Your task to perform on an android device: What time is it in New York? Image 0: 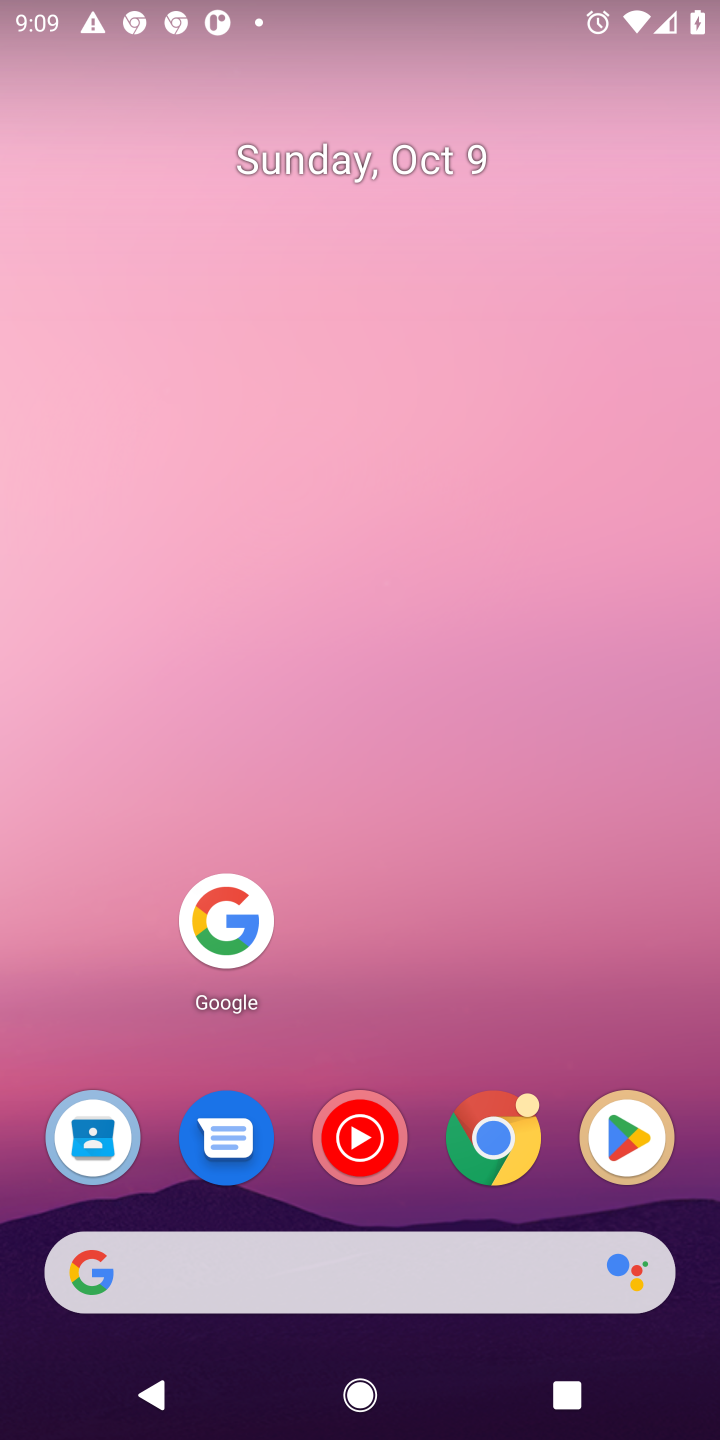
Step 0: drag from (303, 1217) to (389, 224)
Your task to perform on an android device: What time is it in New York? Image 1: 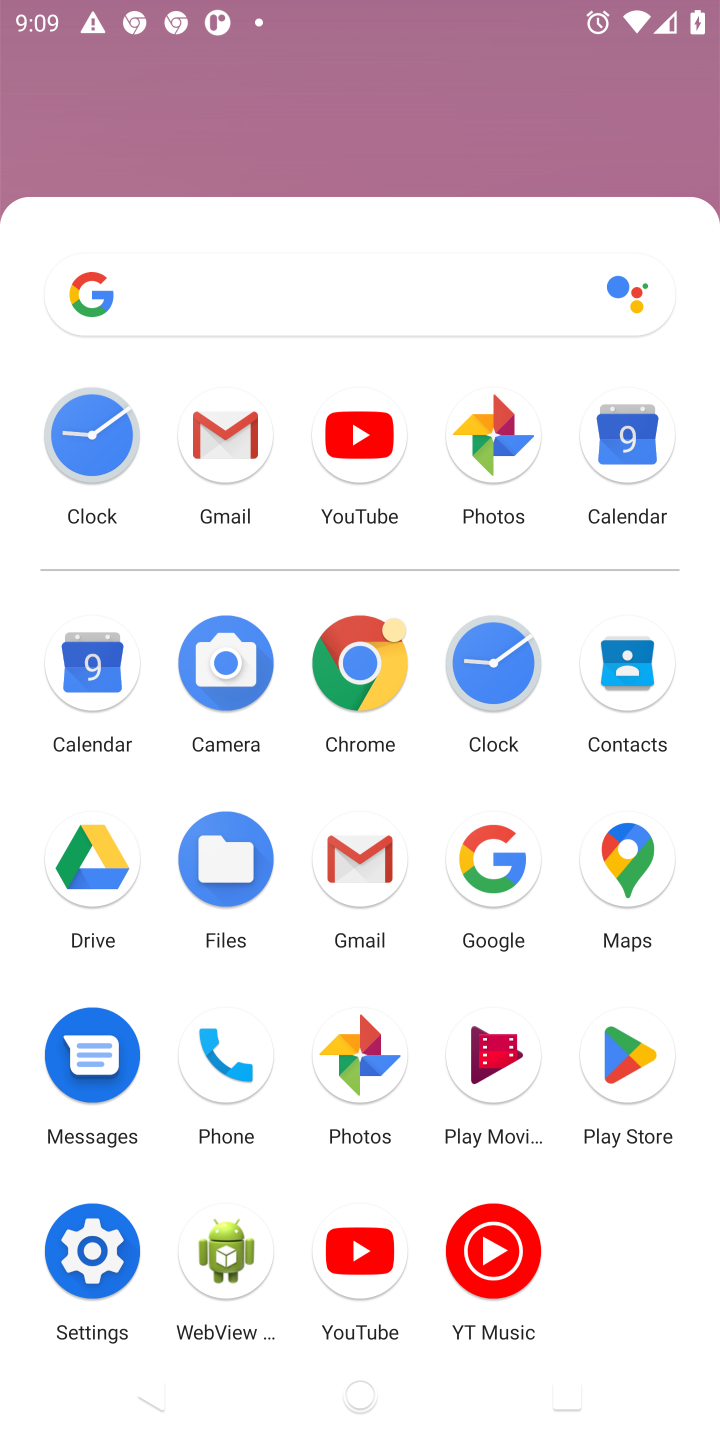
Step 1: click (203, 906)
Your task to perform on an android device: What time is it in New York? Image 2: 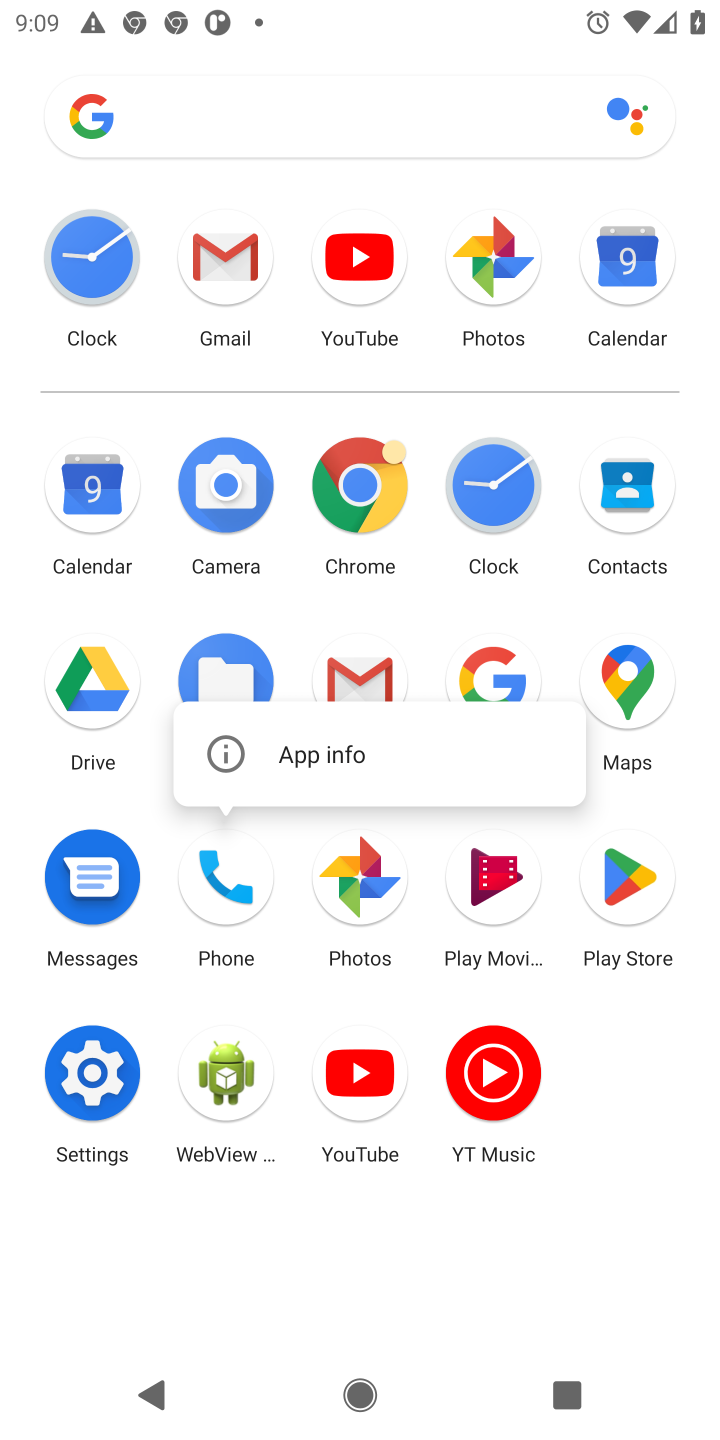
Step 2: click (488, 671)
Your task to perform on an android device: What time is it in New York? Image 3: 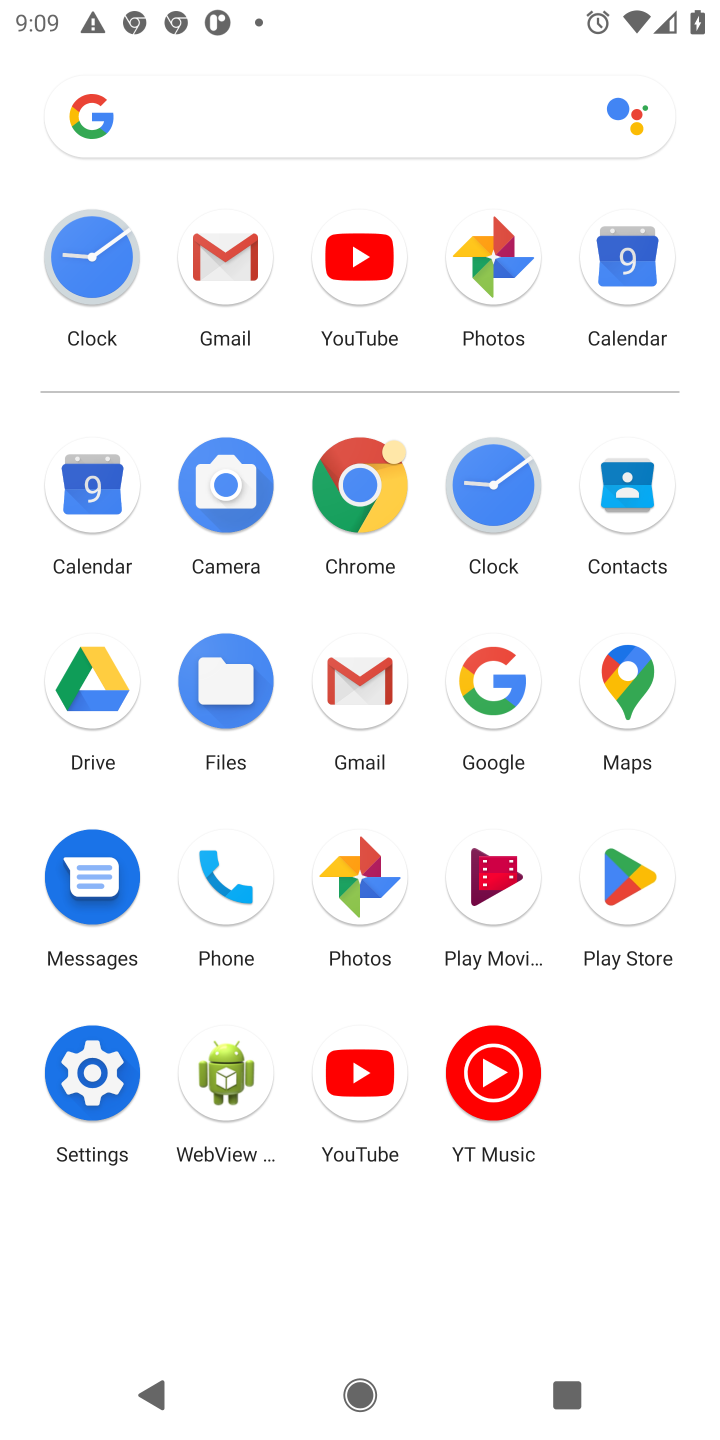
Step 3: click (488, 671)
Your task to perform on an android device: What time is it in New York? Image 4: 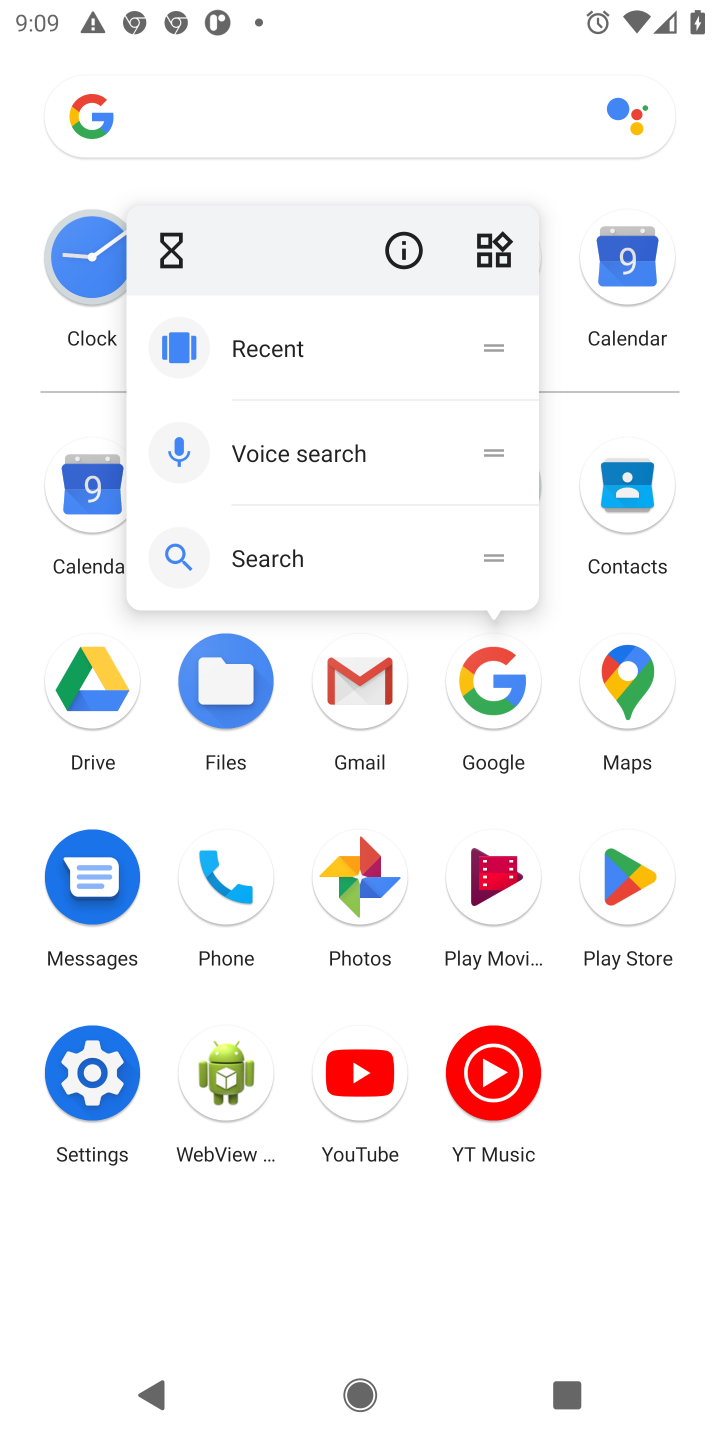
Step 4: click (467, 666)
Your task to perform on an android device: What time is it in New York? Image 5: 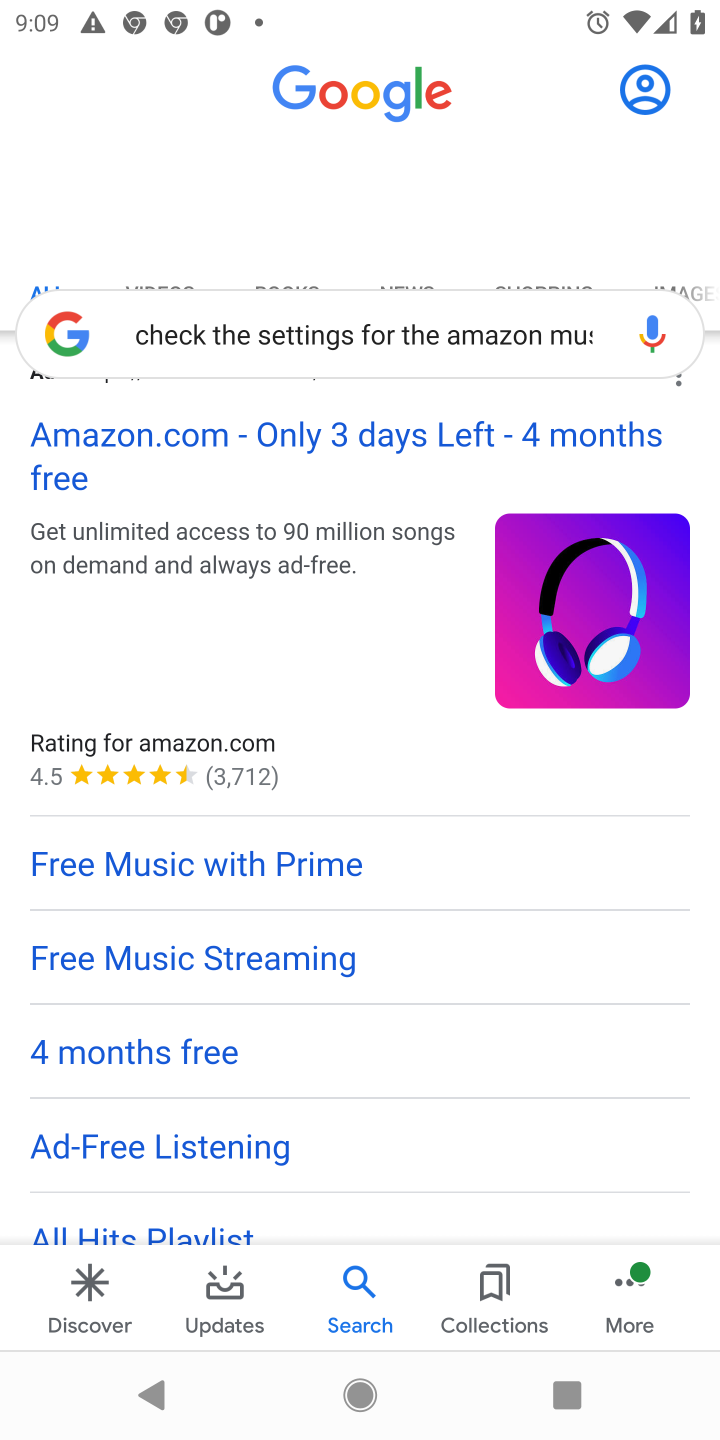
Step 5: click (394, 320)
Your task to perform on an android device: What time is it in New York? Image 6: 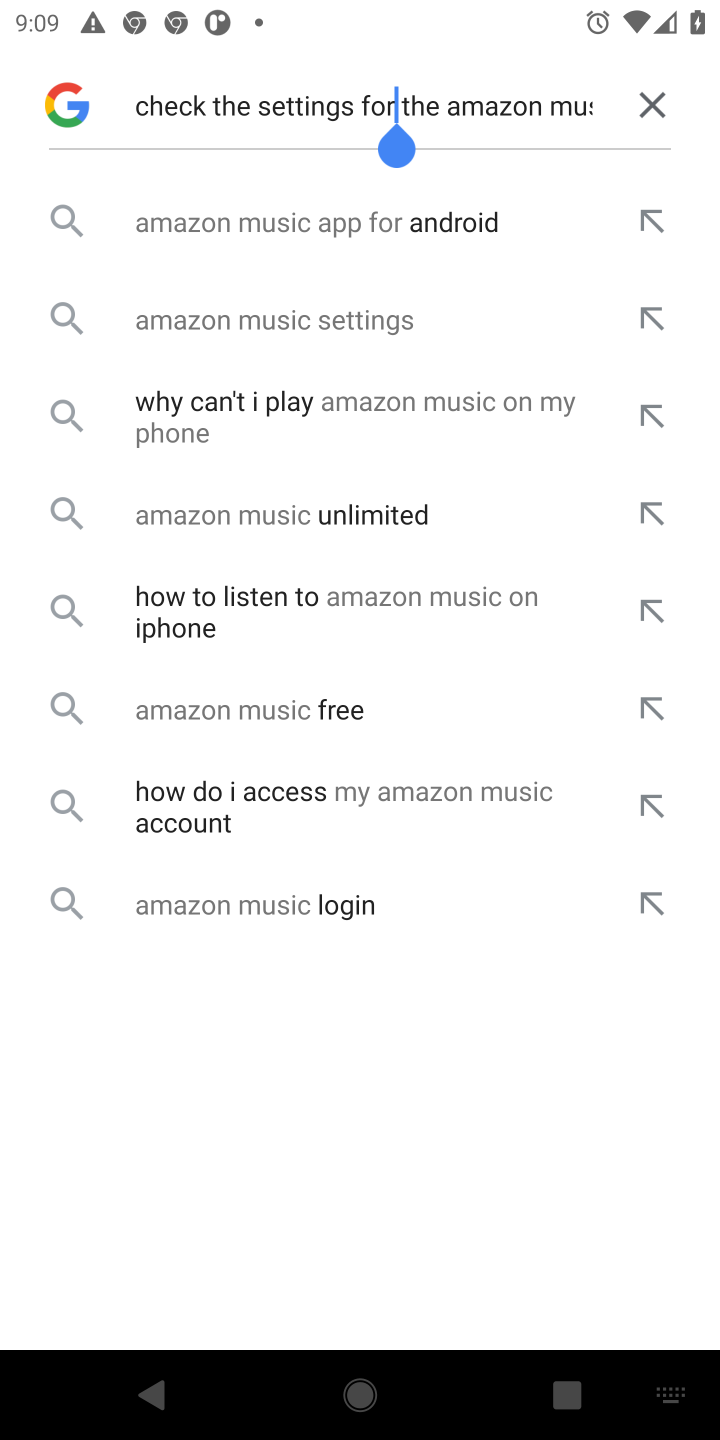
Step 6: click (645, 107)
Your task to perform on an android device: What time is it in New York? Image 7: 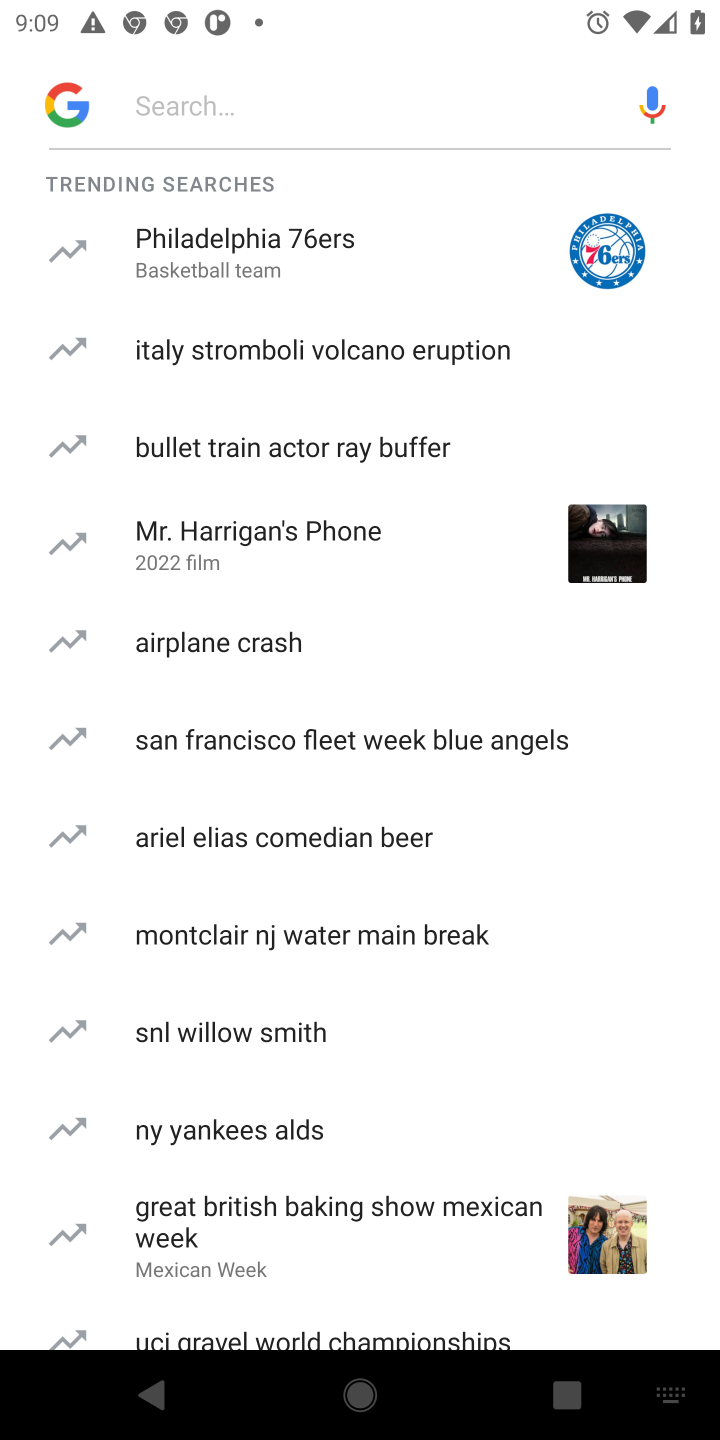
Step 7: click (357, 100)
Your task to perform on an android device: What time is it in New York? Image 8: 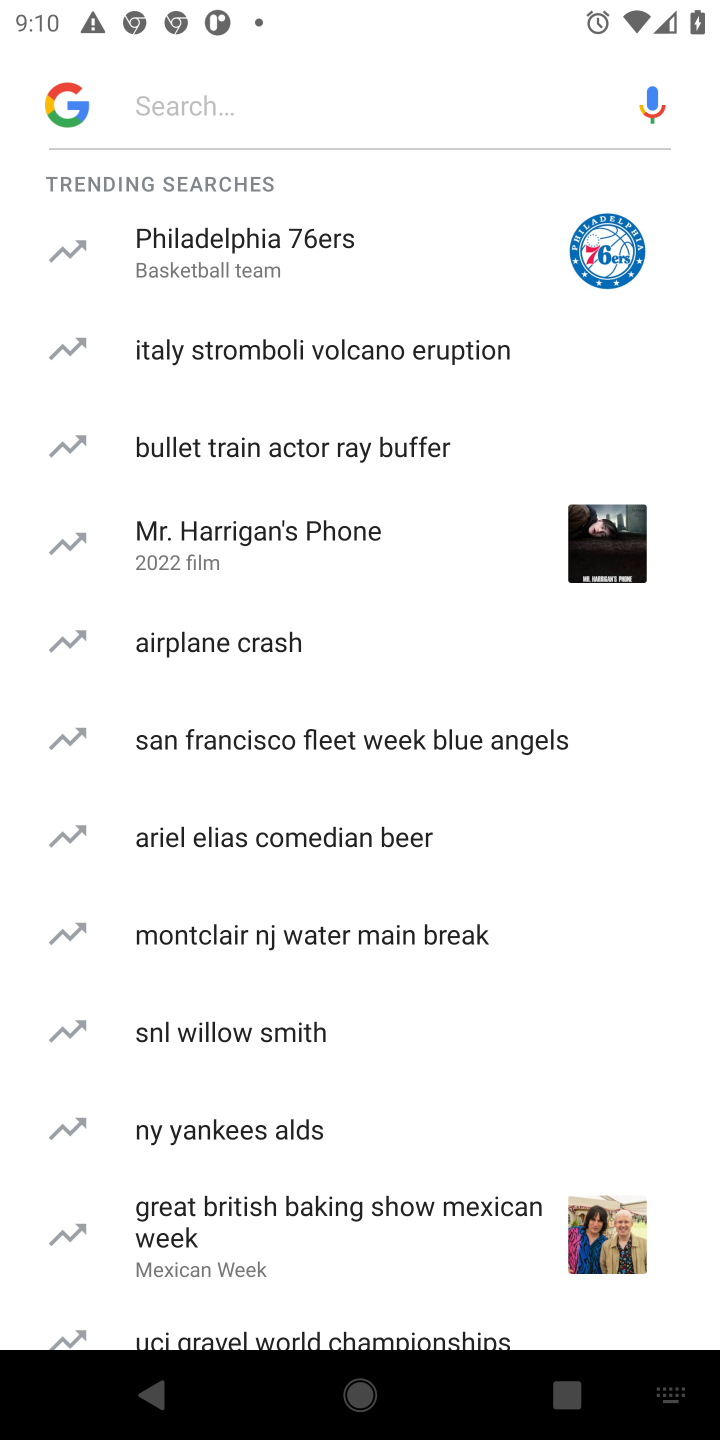
Step 8: type "What time is it in New York? "
Your task to perform on an android device: What time is it in New York? Image 9: 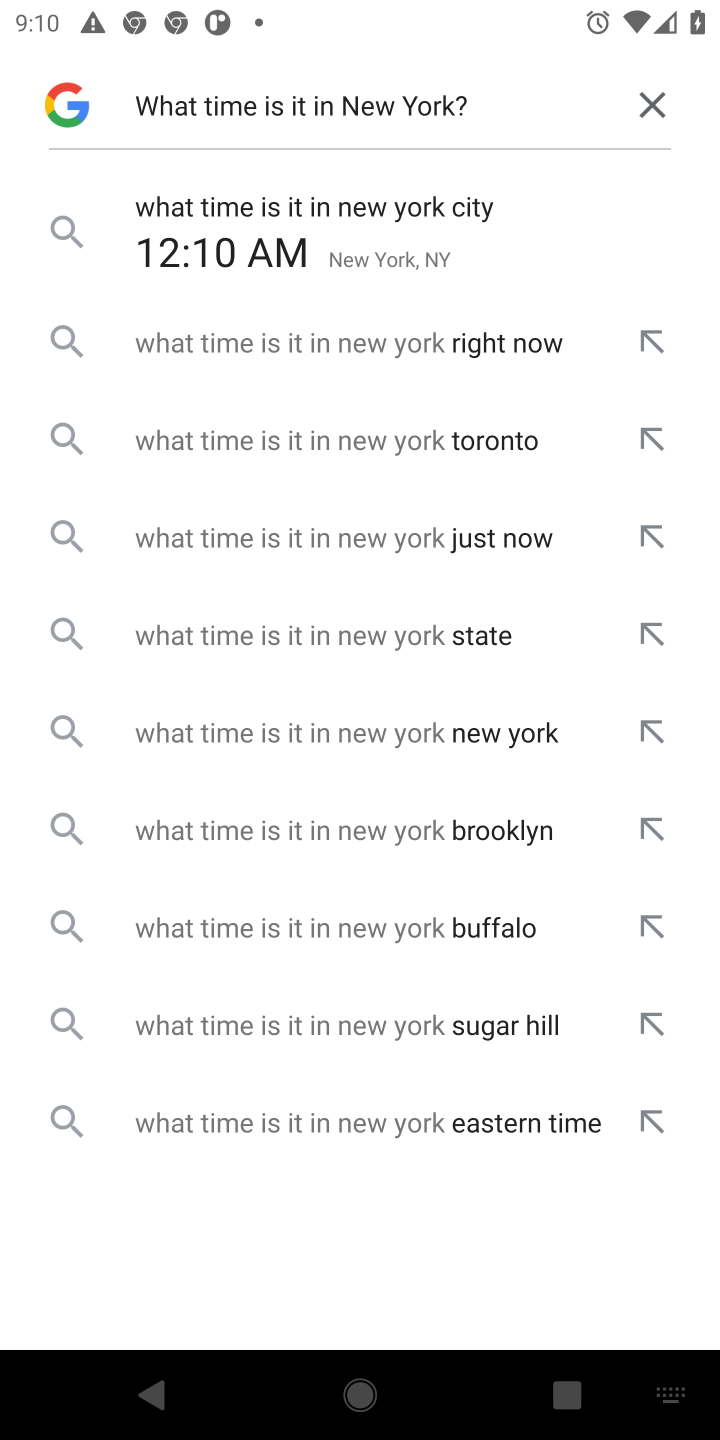
Step 9: click (269, 232)
Your task to perform on an android device: What time is it in New York? Image 10: 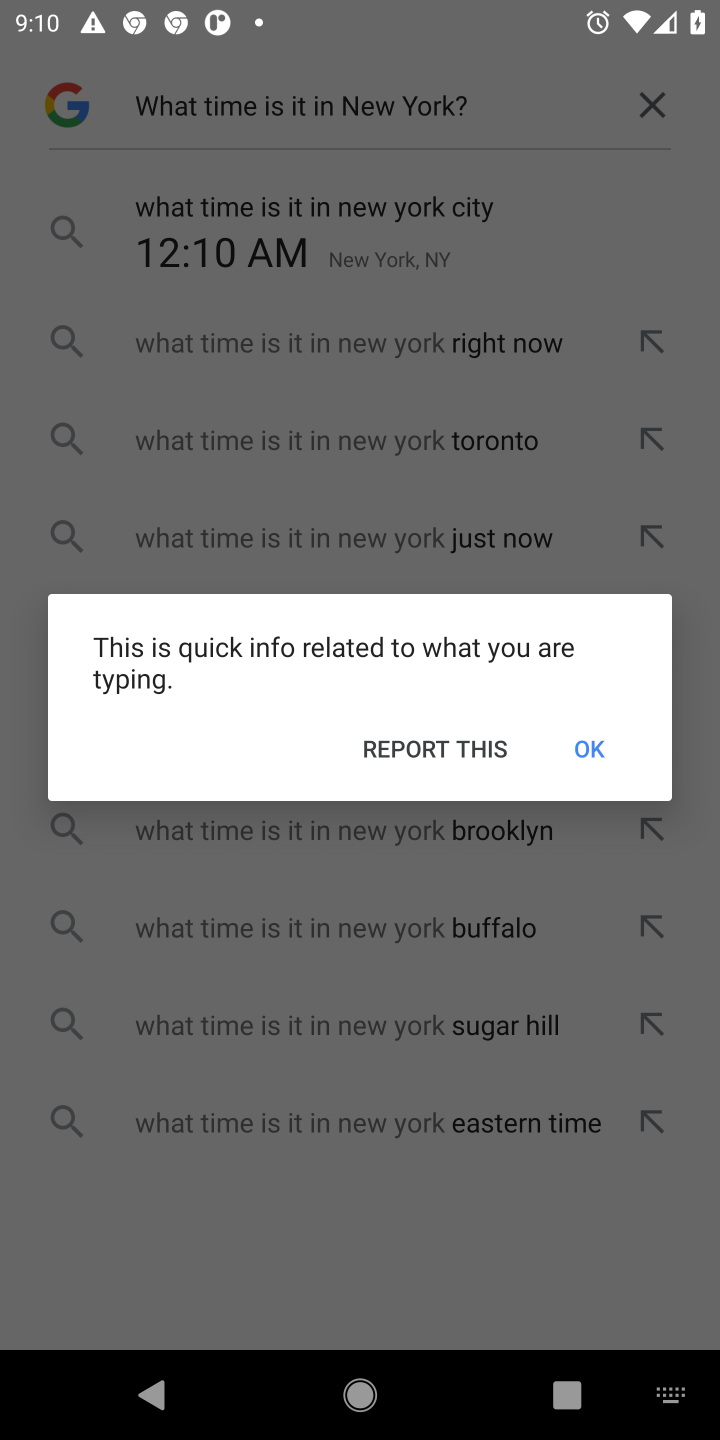
Step 10: click (571, 771)
Your task to perform on an android device: What time is it in New York? Image 11: 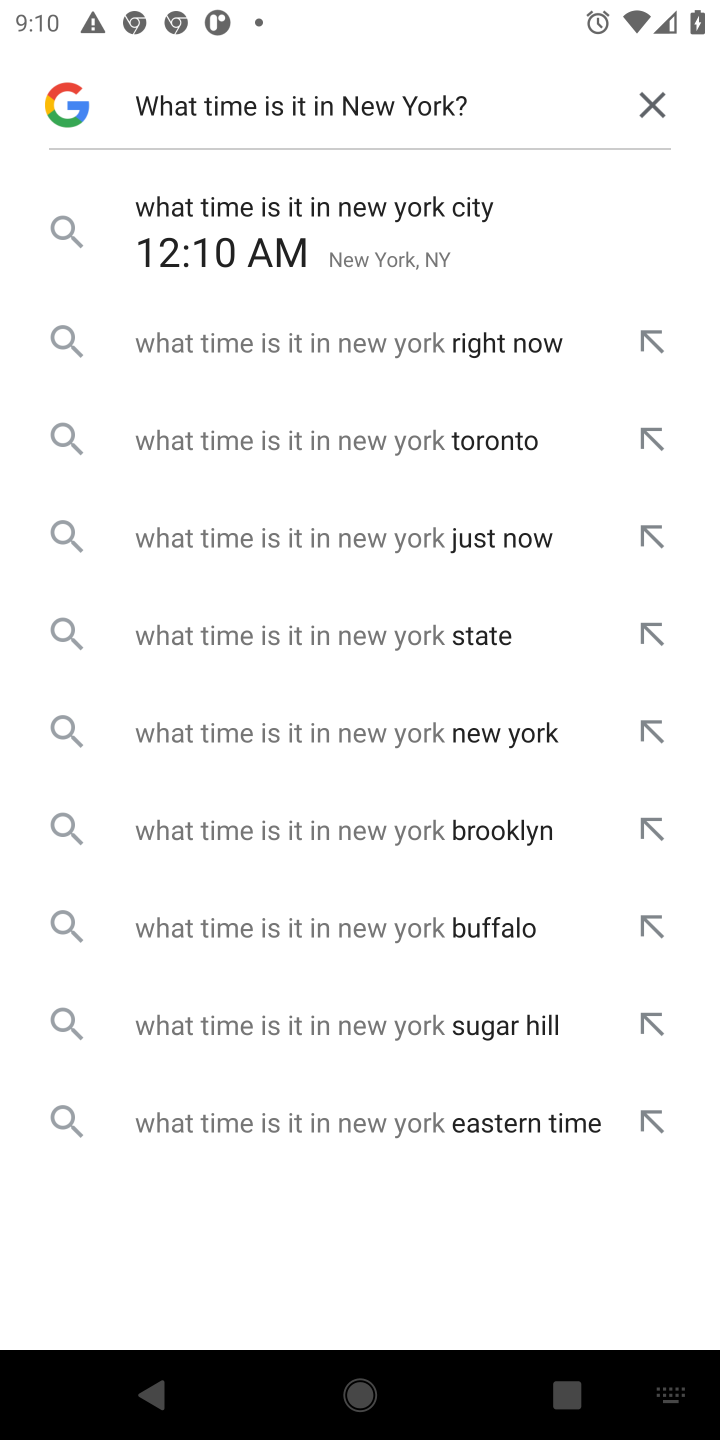
Step 11: click (235, 233)
Your task to perform on an android device: What time is it in New York? Image 12: 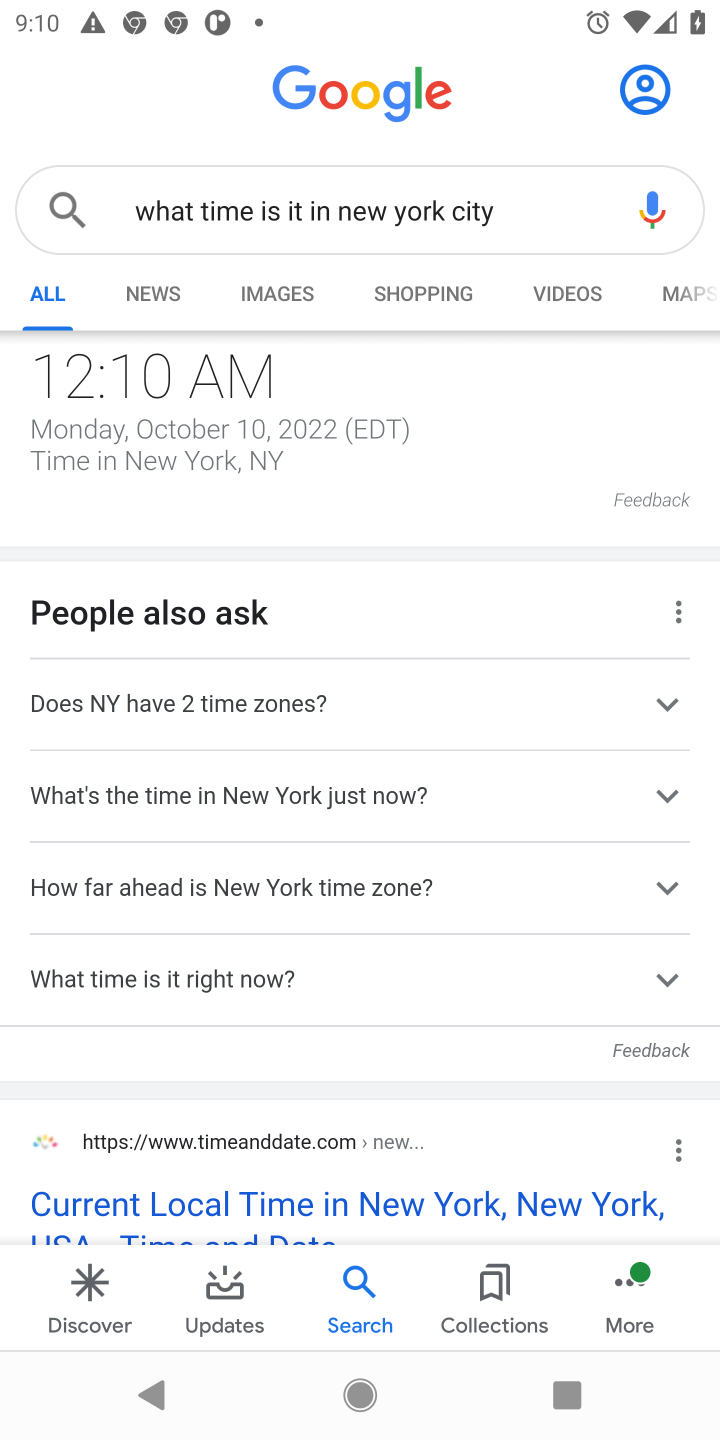
Step 12: task complete